Your task to perform on an android device: Go to calendar. Show me events next week Image 0: 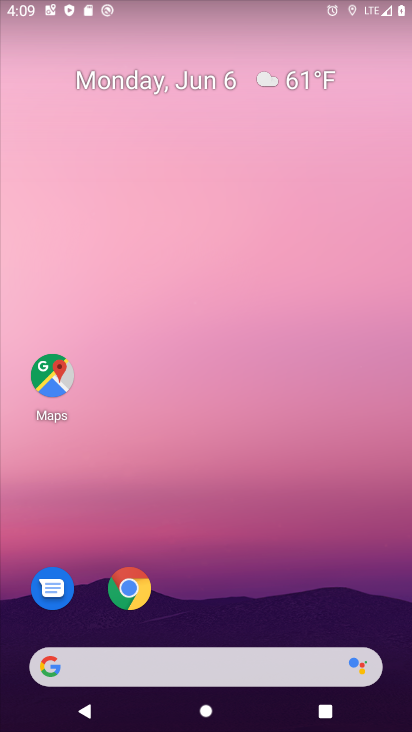
Step 0: drag from (251, 604) to (192, 115)
Your task to perform on an android device: Go to calendar. Show me events next week Image 1: 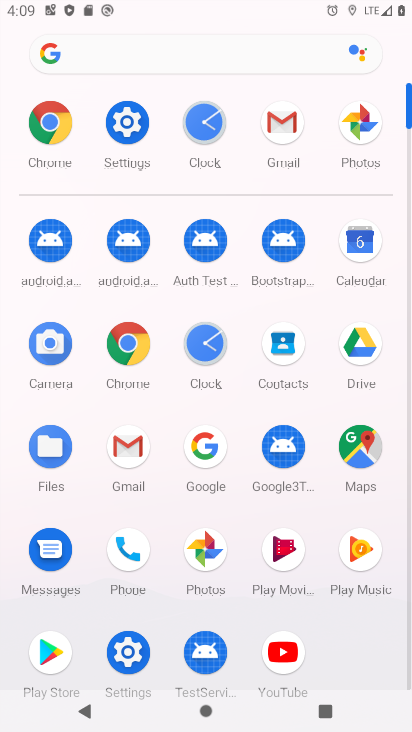
Step 1: click (371, 248)
Your task to perform on an android device: Go to calendar. Show me events next week Image 2: 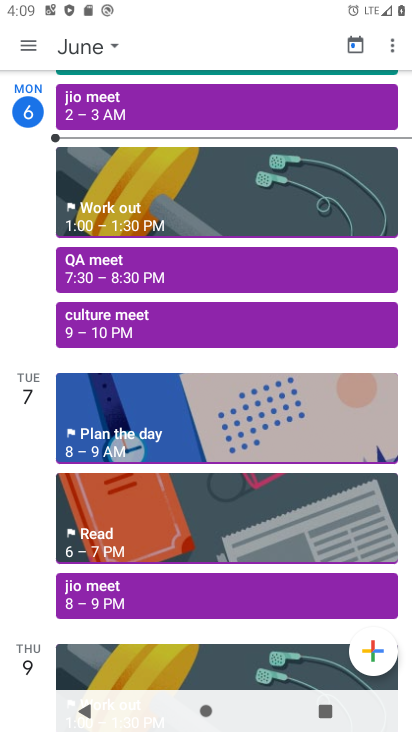
Step 2: click (31, 44)
Your task to perform on an android device: Go to calendar. Show me events next week Image 3: 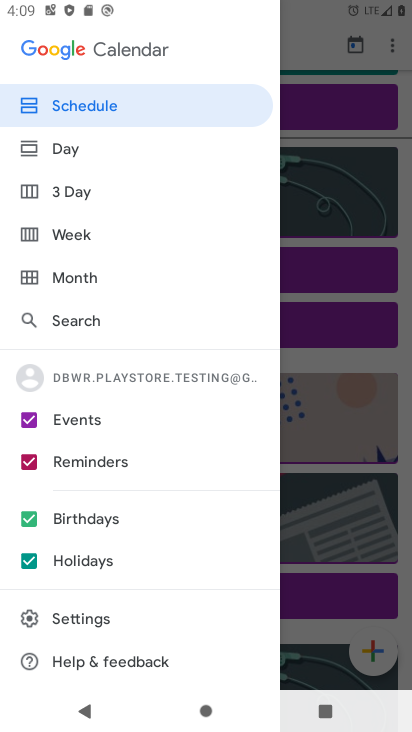
Step 3: click (25, 558)
Your task to perform on an android device: Go to calendar. Show me events next week Image 4: 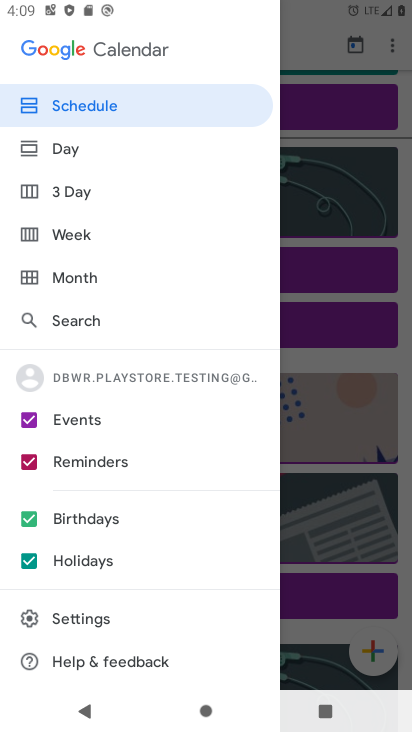
Step 4: click (28, 519)
Your task to perform on an android device: Go to calendar. Show me events next week Image 5: 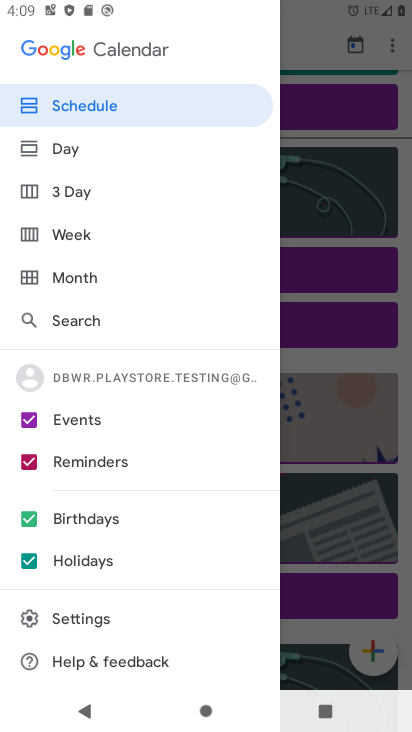
Step 5: click (27, 463)
Your task to perform on an android device: Go to calendar. Show me events next week Image 6: 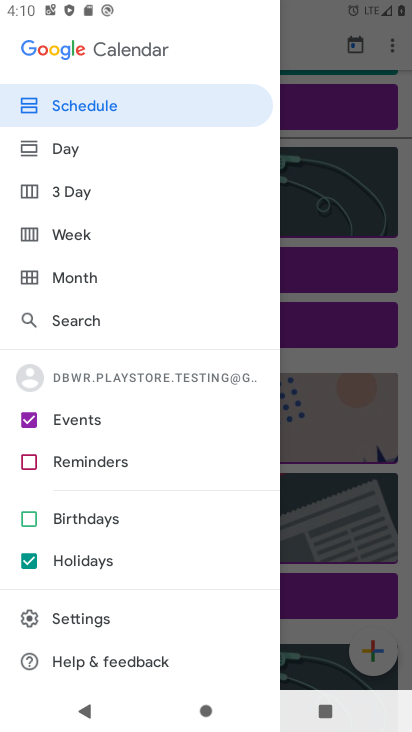
Step 6: click (25, 568)
Your task to perform on an android device: Go to calendar. Show me events next week Image 7: 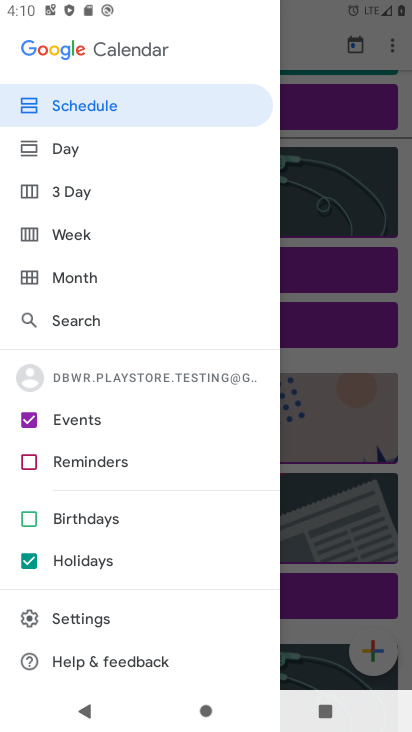
Step 7: click (61, 222)
Your task to perform on an android device: Go to calendar. Show me events next week Image 8: 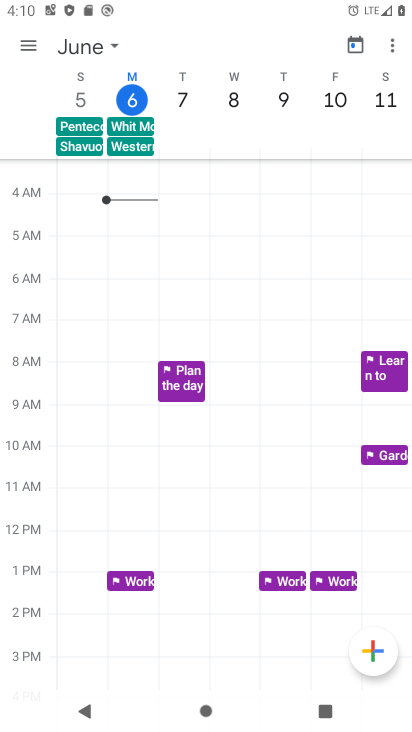
Step 8: task complete